Your task to perform on an android device: Open notification settings Image 0: 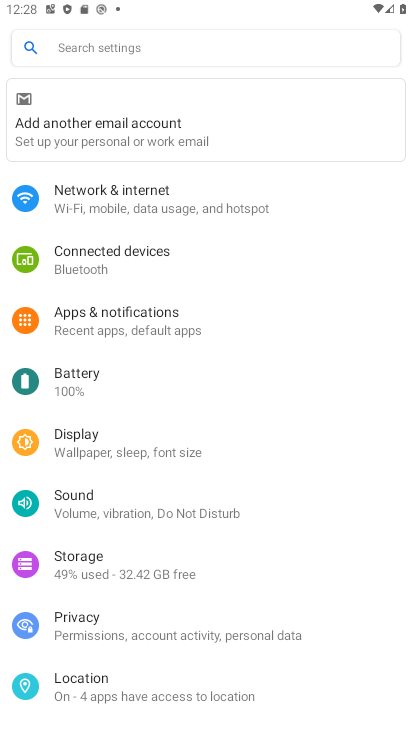
Step 0: press home button
Your task to perform on an android device: Open notification settings Image 1: 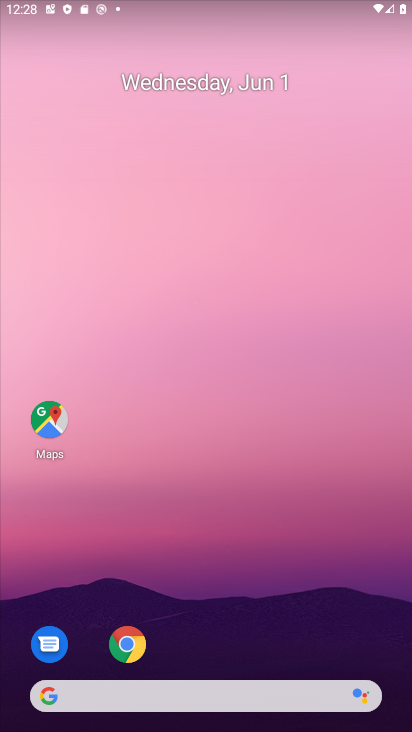
Step 1: drag from (380, 638) to (332, 111)
Your task to perform on an android device: Open notification settings Image 2: 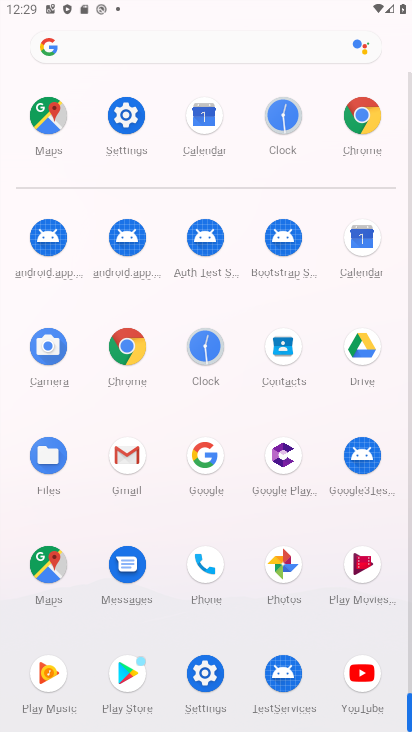
Step 2: click (140, 131)
Your task to perform on an android device: Open notification settings Image 3: 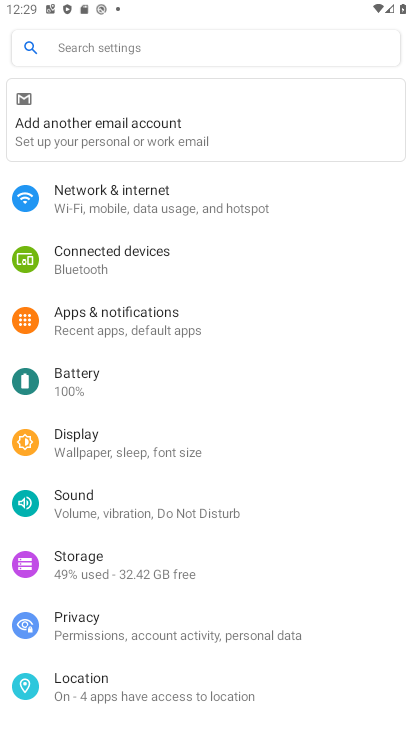
Step 3: click (169, 331)
Your task to perform on an android device: Open notification settings Image 4: 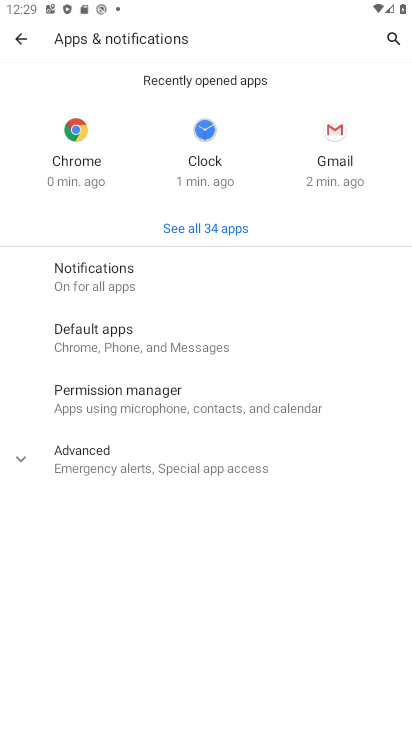
Step 4: click (155, 273)
Your task to perform on an android device: Open notification settings Image 5: 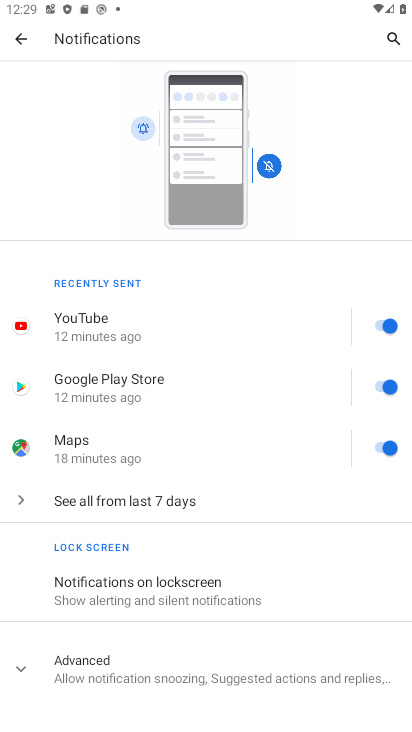
Step 5: drag from (349, 569) to (328, 305)
Your task to perform on an android device: Open notification settings Image 6: 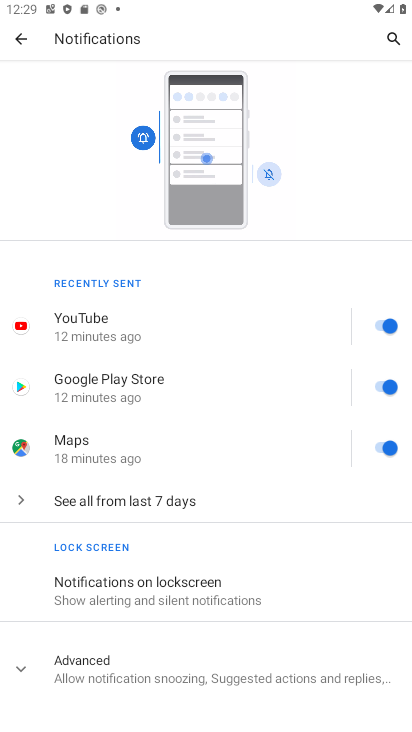
Step 6: drag from (275, 652) to (225, 260)
Your task to perform on an android device: Open notification settings Image 7: 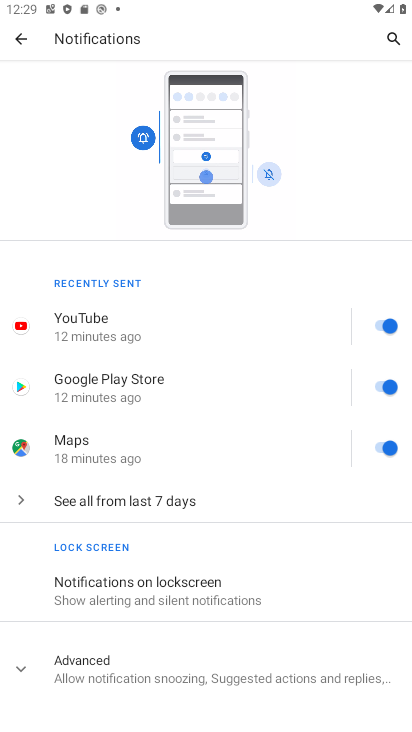
Step 7: click (169, 656)
Your task to perform on an android device: Open notification settings Image 8: 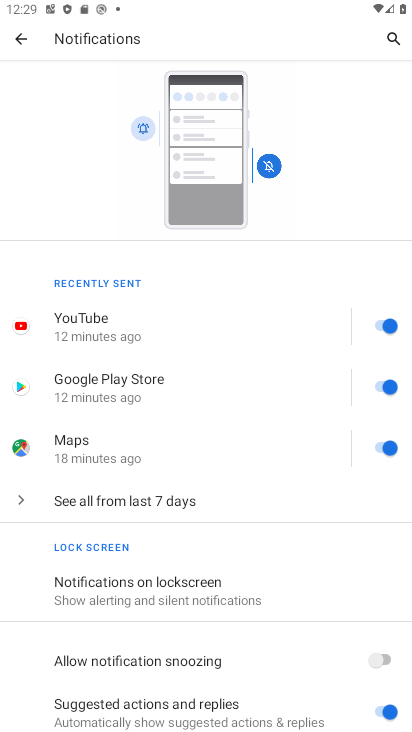
Step 8: task complete